Your task to perform on an android device: set default search engine in the chrome app Image 0: 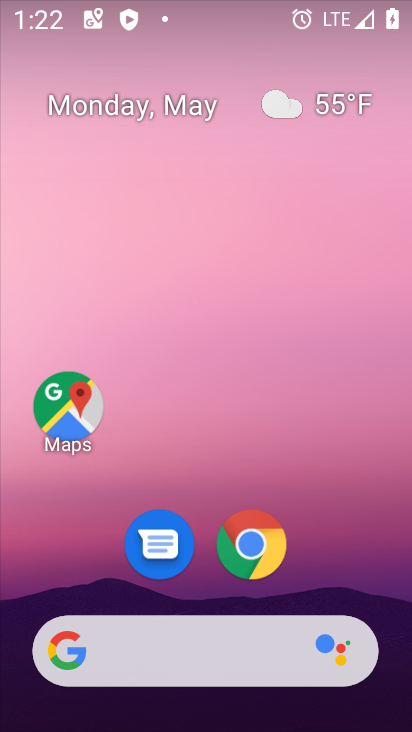
Step 0: click (245, 540)
Your task to perform on an android device: set default search engine in the chrome app Image 1: 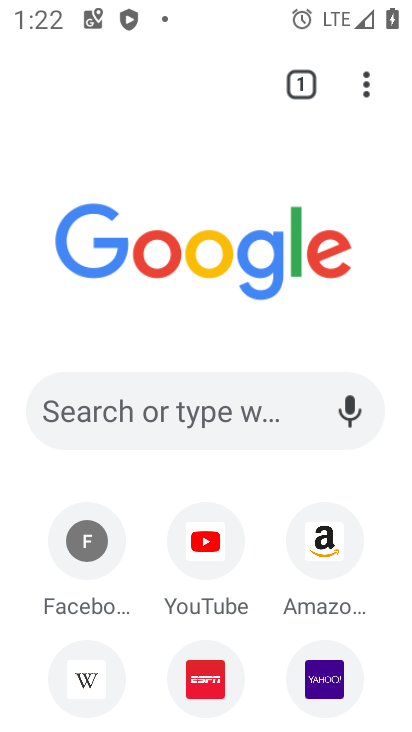
Step 1: click (366, 93)
Your task to perform on an android device: set default search engine in the chrome app Image 2: 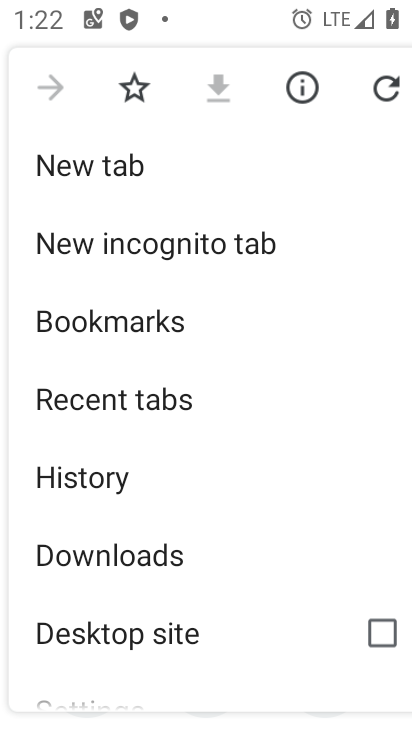
Step 2: drag from (241, 616) to (288, 260)
Your task to perform on an android device: set default search engine in the chrome app Image 3: 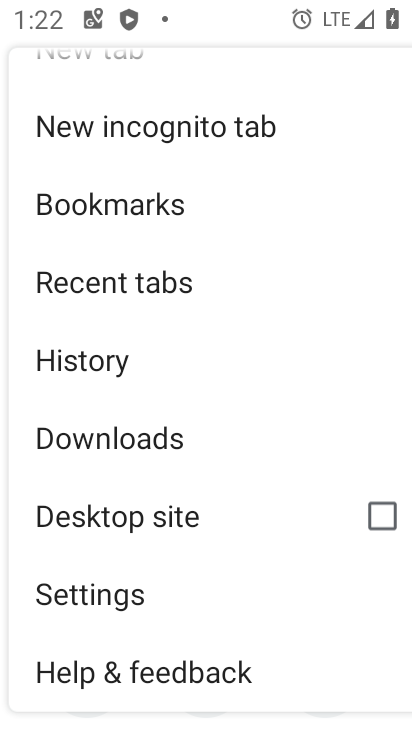
Step 3: click (76, 586)
Your task to perform on an android device: set default search engine in the chrome app Image 4: 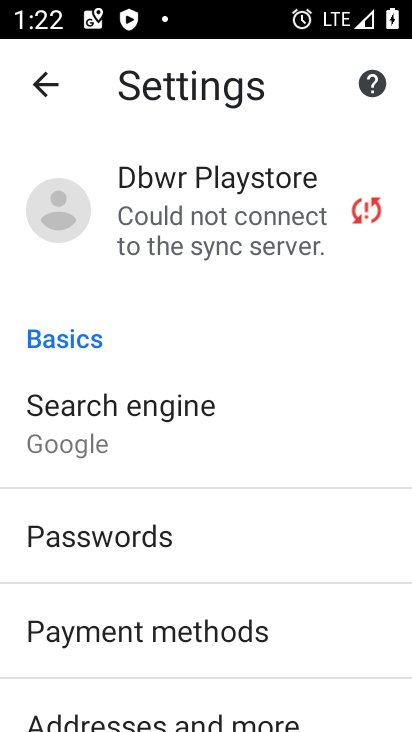
Step 4: click (66, 420)
Your task to perform on an android device: set default search engine in the chrome app Image 5: 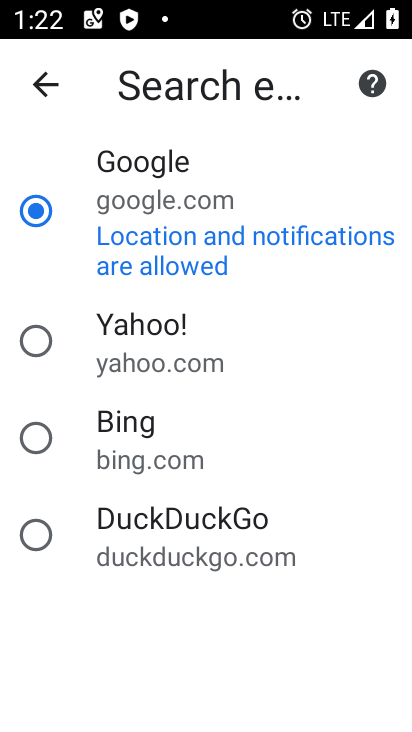
Step 5: click (35, 339)
Your task to perform on an android device: set default search engine in the chrome app Image 6: 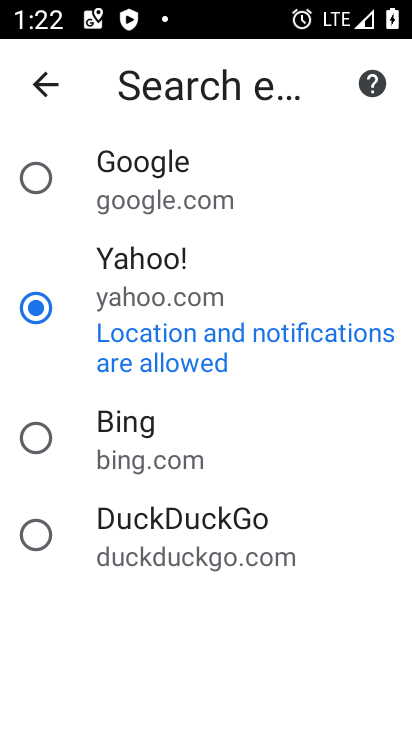
Step 6: task complete